Your task to perform on an android device: check android version Image 0: 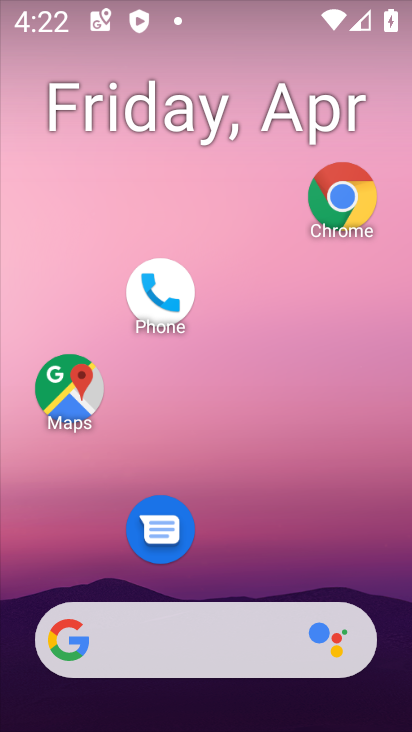
Step 0: drag from (221, 579) to (256, 39)
Your task to perform on an android device: check android version Image 1: 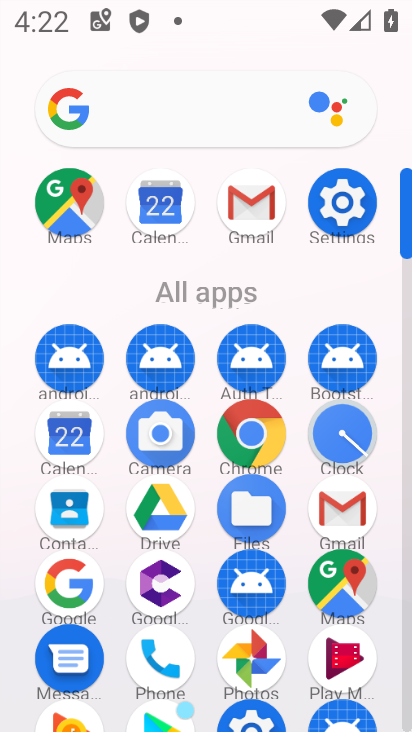
Step 1: click (343, 194)
Your task to perform on an android device: check android version Image 2: 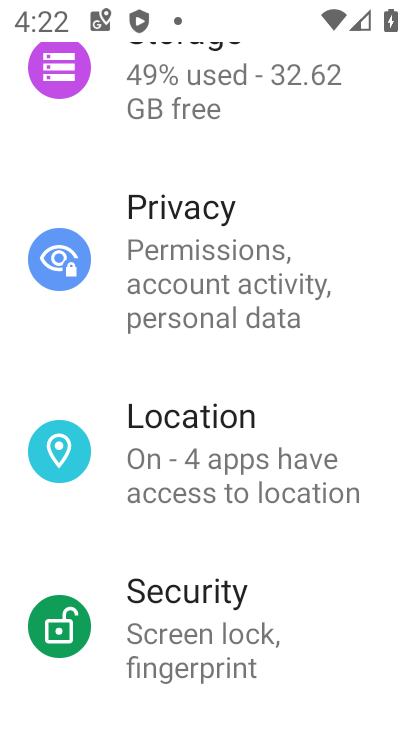
Step 2: drag from (222, 625) to (294, 161)
Your task to perform on an android device: check android version Image 3: 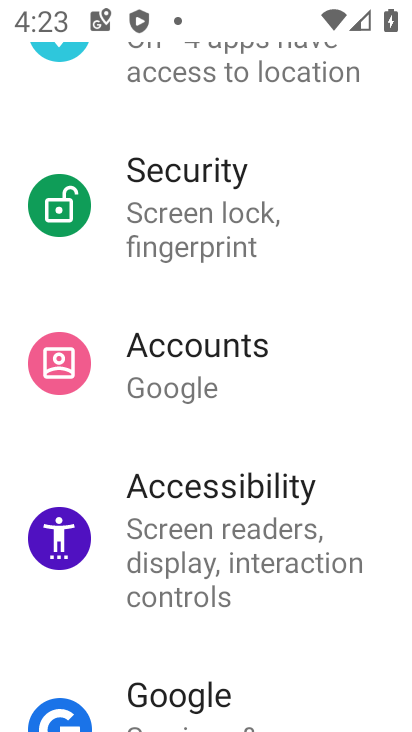
Step 3: drag from (221, 643) to (229, 289)
Your task to perform on an android device: check android version Image 4: 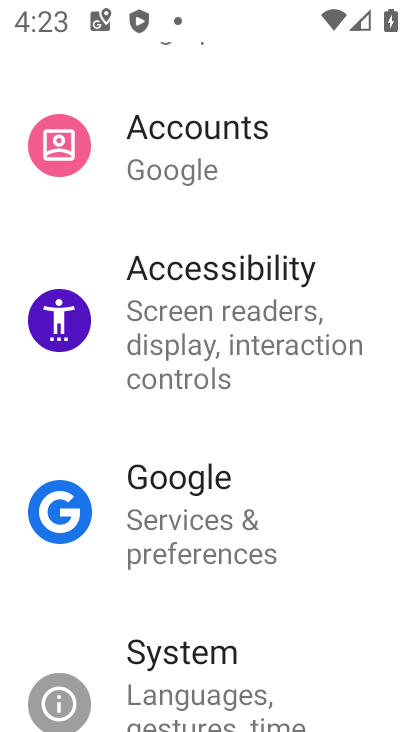
Step 4: drag from (189, 659) to (221, 255)
Your task to perform on an android device: check android version Image 5: 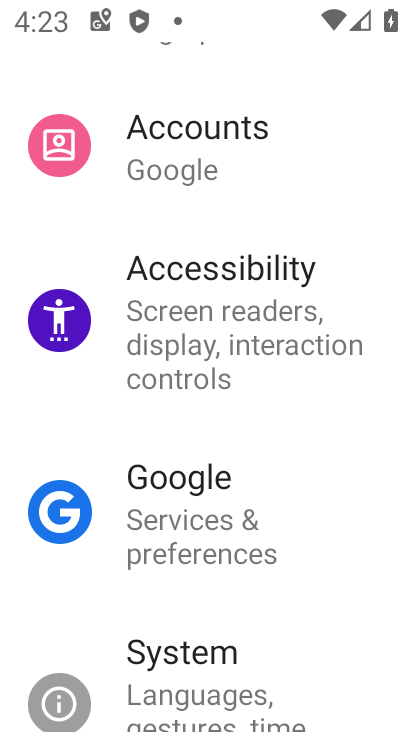
Step 5: drag from (186, 629) to (185, 242)
Your task to perform on an android device: check android version Image 6: 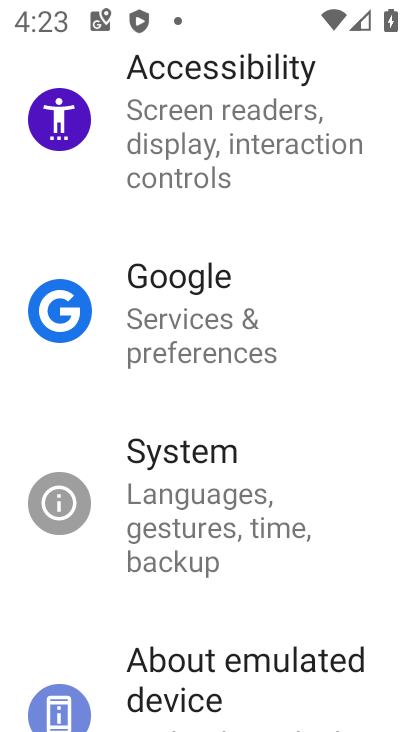
Step 6: drag from (189, 667) to (204, 229)
Your task to perform on an android device: check android version Image 7: 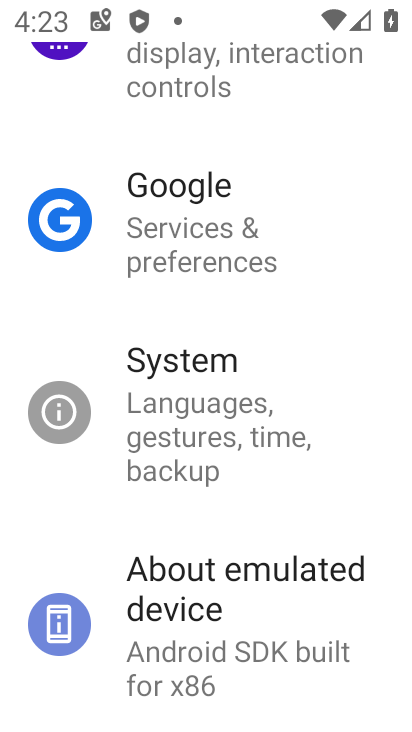
Step 7: click (241, 615)
Your task to perform on an android device: check android version Image 8: 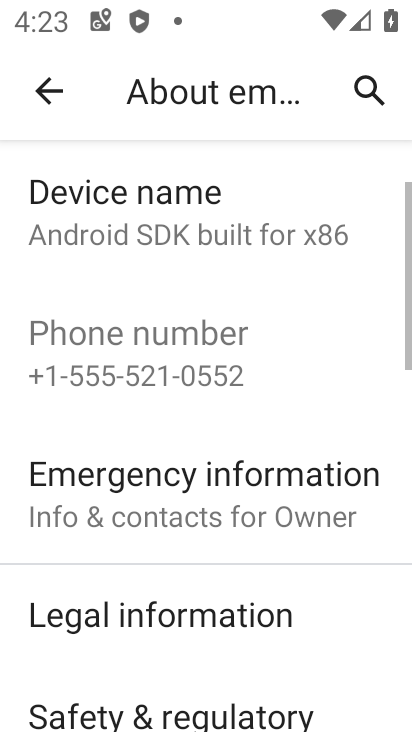
Step 8: drag from (243, 676) to (242, 185)
Your task to perform on an android device: check android version Image 9: 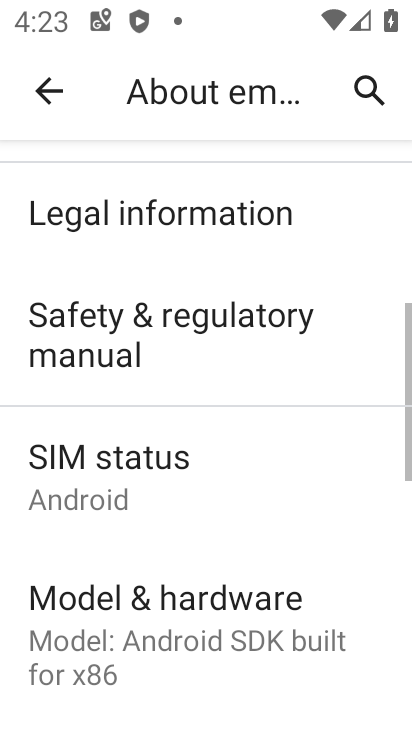
Step 9: drag from (216, 661) to (232, 189)
Your task to perform on an android device: check android version Image 10: 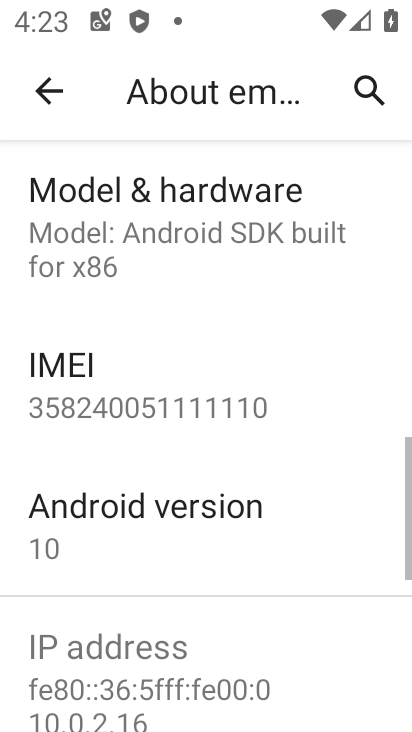
Step 10: click (163, 520)
Your task to perform on an android device: check android version Image 11: 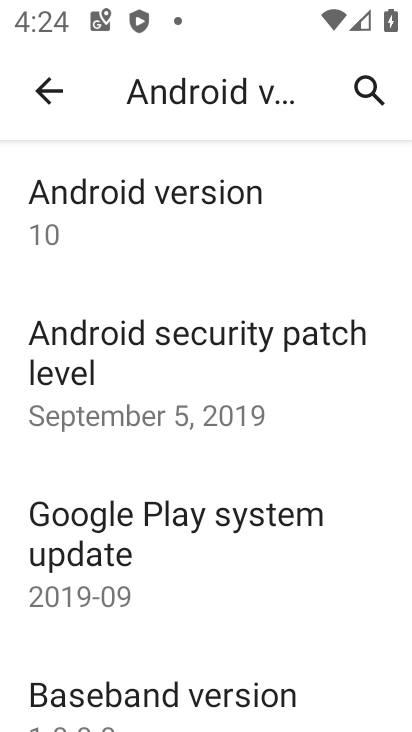
Step 11: task complete